Your task to perform on an android device: Play the last video I watched on Youtube Image 0: 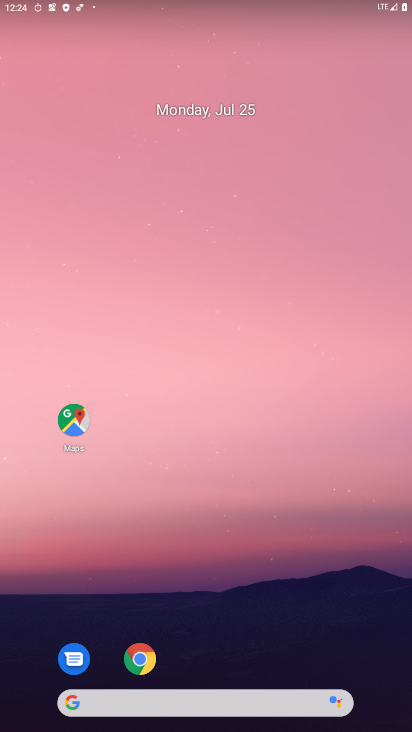
Step 0: drag from (45, 697) to (244, 65)
Your task to perform on an android device: Play the last video I watched on Youtube Image 1: 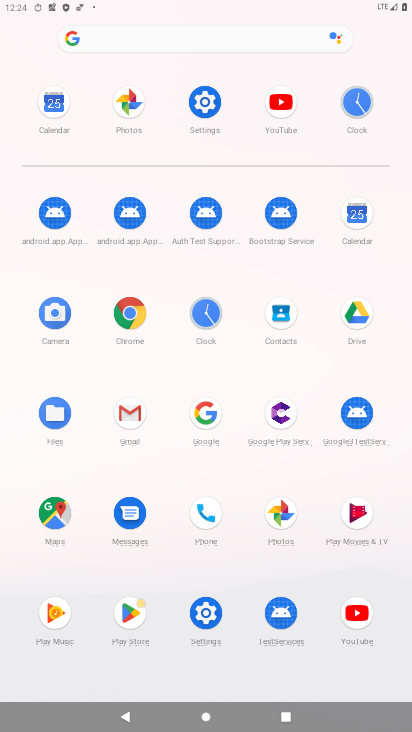
Step 1: click (355, 613)
Your task to perform on an android device: Play the last video I watched on Youtube Image 2: 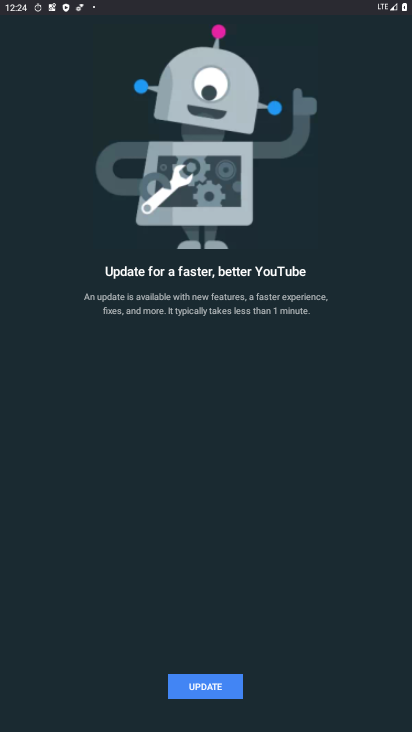
Step 2: click (203, 679)
Your task to perform on an android device: Play the last video I watched on Youtube Image 3: 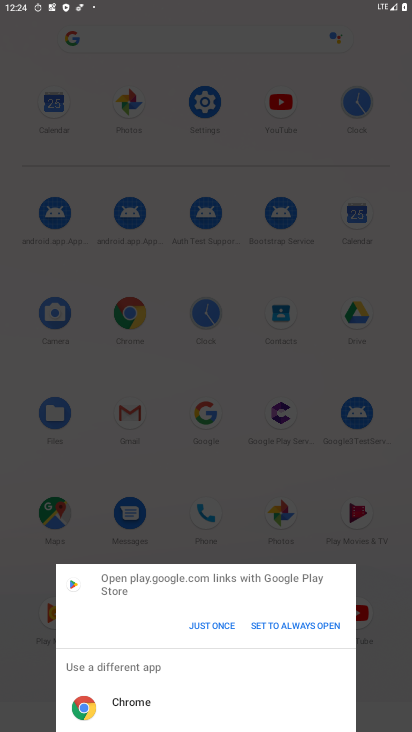
Step 3: click (214, 626)
Your task to perform on an android device: Play the last video I watched on Youtube Image 4: 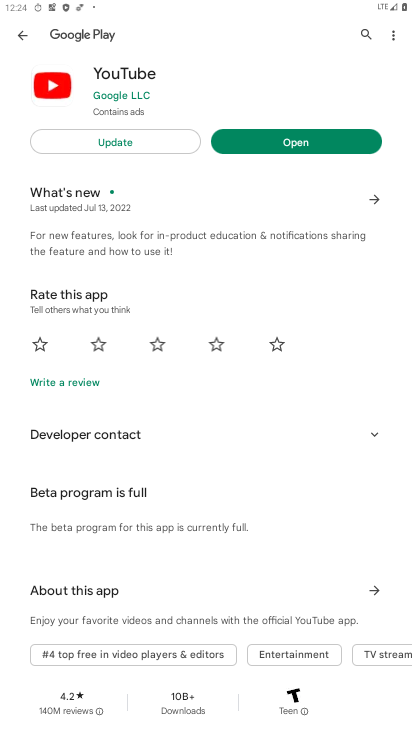
Step 4: click (333, 144)
Your task to perform on an android device: Play the last video I watched on Youtube Image 5: 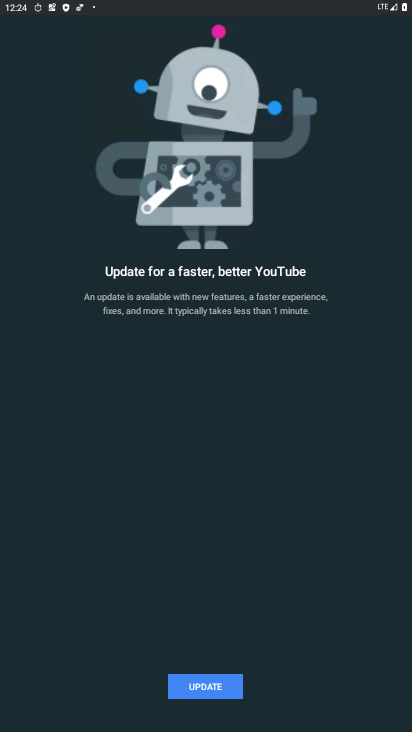
Step 5: task complete